Your task to perform on an android device: clear history in the chrome app Image 0: 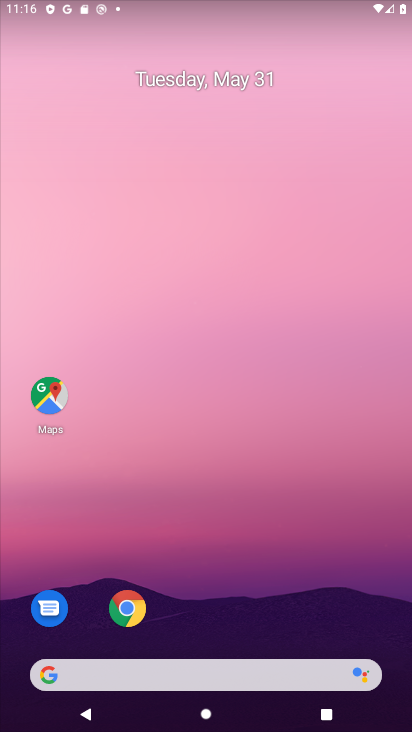
Step 0: press home button
Your task to perform on an android device: clear history in the chrome app Image 1: 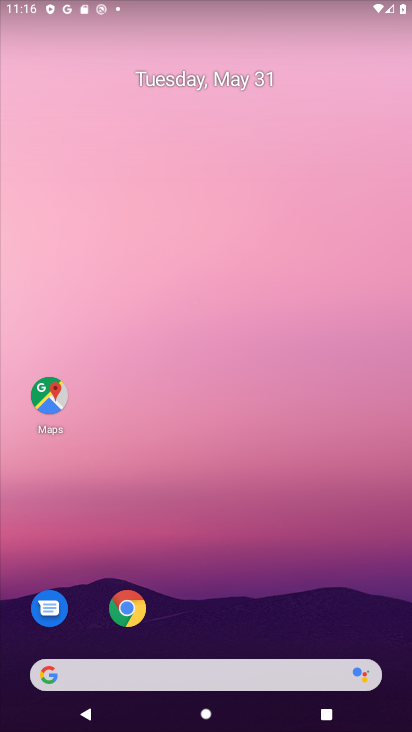
Step 1: click (128, 598)
Your task to perform on an android device: clear history in the chrome app Image 2: 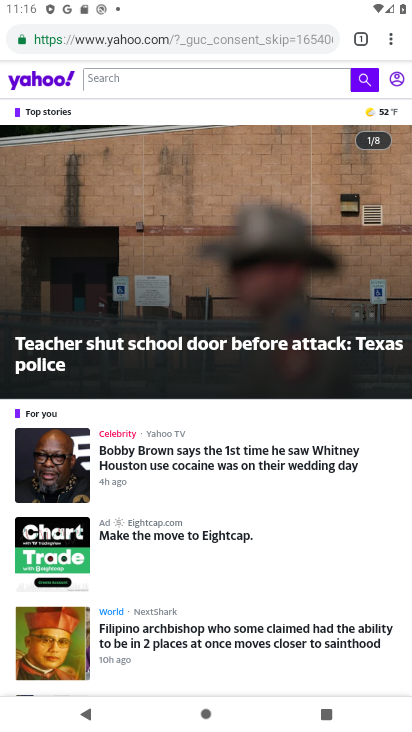
Step 2: drag from (391, 39) to (278, 472)
Your task to perform on an android device: clear history in the chrome app Image 3: 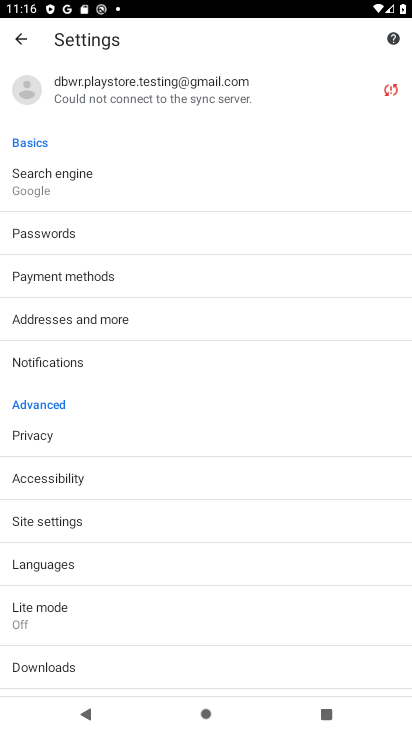
Step 3: click (25, 36)
Your task to perform on an android device: clear history in the chrome app Image 4: 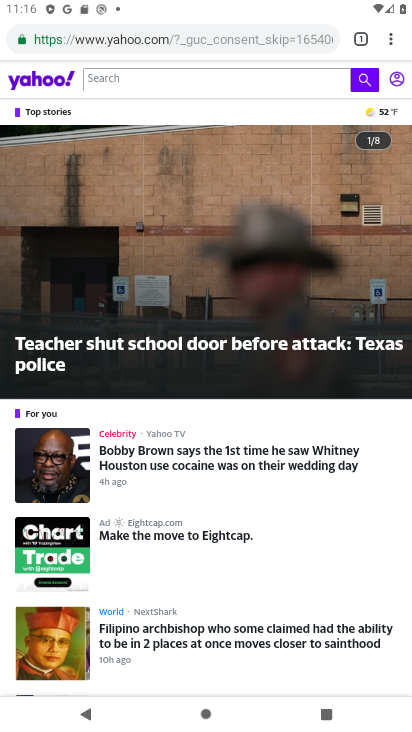
Step 4: drag from (396, 31) to (254, 224)
Your task to perform on an android device: clear history in the chrome app Image 5: 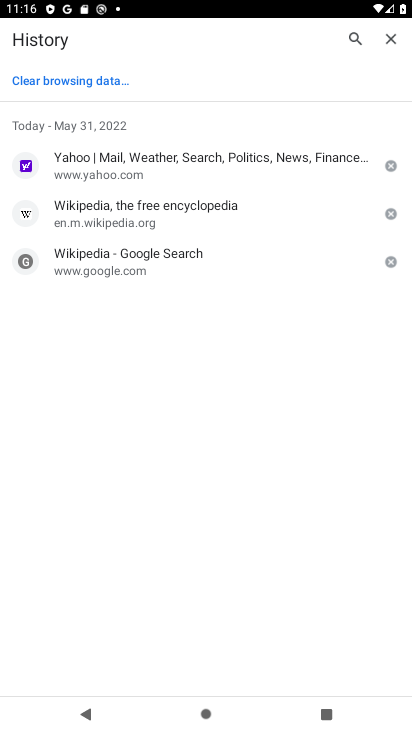
Step 5: click (20, 78)
Your task to perform on an android device: clear history in the chrome app Image 6: 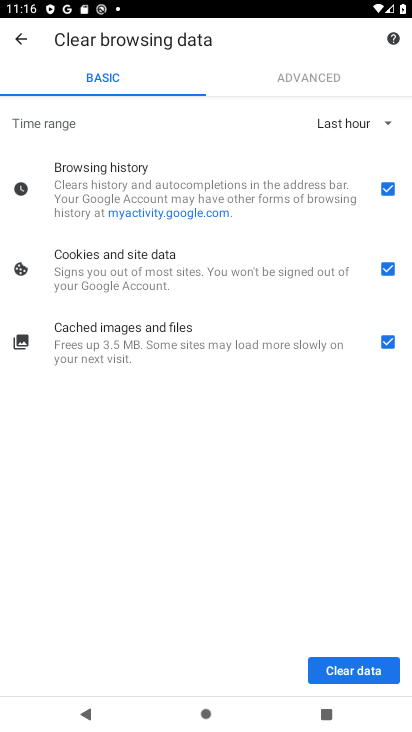
Step 6: click (335, 665)
Your task to perform on an android device: clear history in the chrome app Image 7: 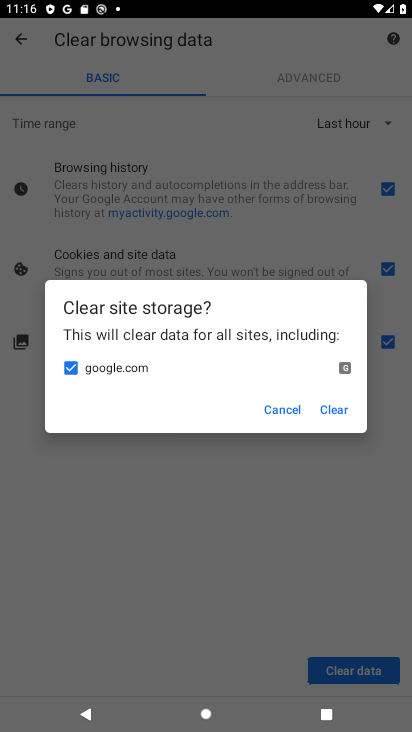
Step 7: click (330, 413)
Your task to perform on an android device: clear history in the chrome app Image 8: 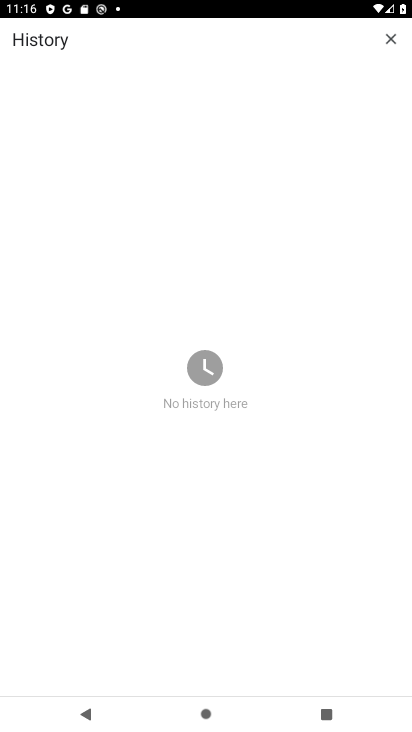
Step 8: task complete